Your task to perform on an android device: empty trash in the gmail app Image 0: 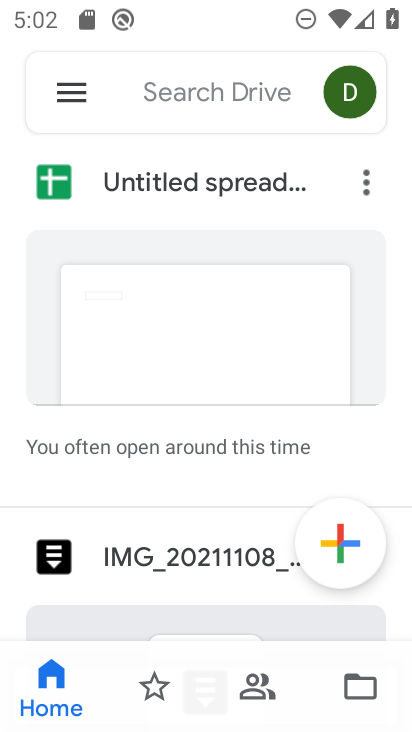
Step 0: press back button
Your task to perform on an android device: empty trash in the gmail app Image 1: 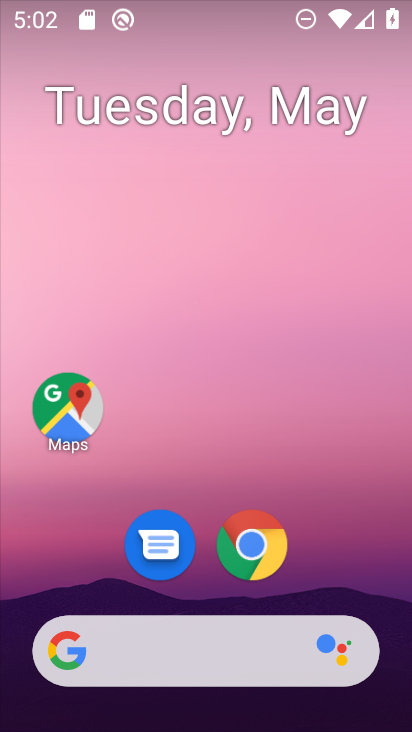
Step 1: drag from (307, 454) to (265, 24)
Your task to perform on an android device: empty trash in the gmail app Image 2: 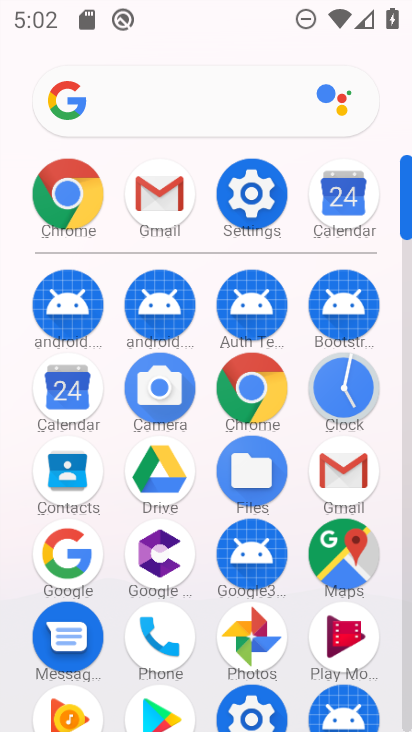
Step 2: drag from (35, 582) to (13, 183)
Your task to perform on an android device: empty trash in the gmail app Image 3: 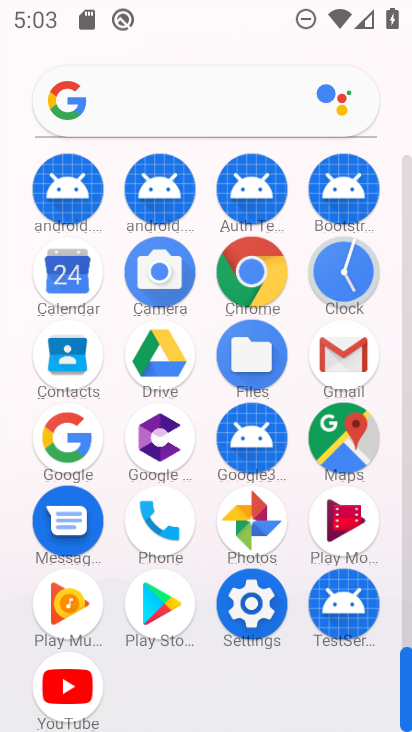
Step 3: click (343, 349)
Your task to perform on an android device: empty trash in the gmail app Image 4: 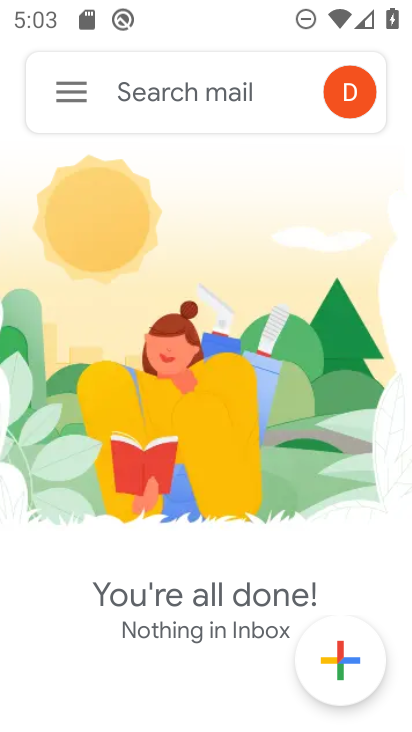
Step 4: click (64, 90)
Your task to perform on an android device: empty trash in the gmail app Image 5: 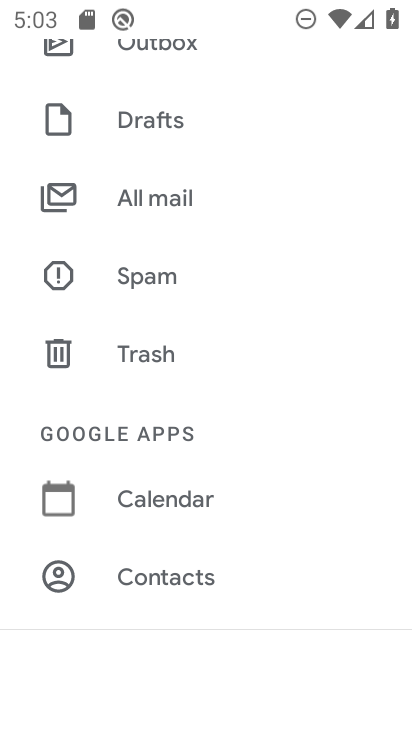
Step 5: click (168, 352)
Your task to perform on an android device: empty trash in the gmail app Image 6: 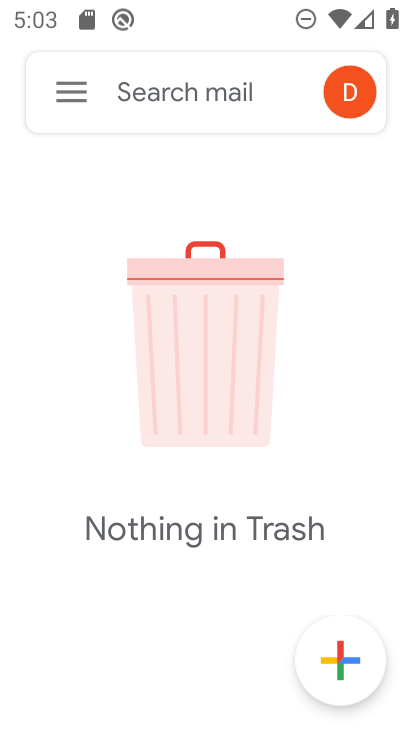
Step 6: task complete